Your task to perform on an android device: Clear the shopping cart on walmart. Search for "usb-c to usb-b" on walmart, select the first entry, add it to the cart, then select checkout. Image 0: 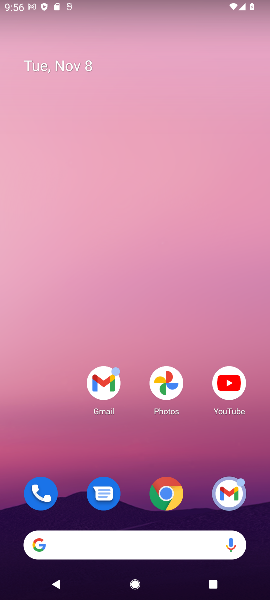
Step 0: click (170, 496)
Your task to perform on an android device: Clear the shopping cart on walmart. Search for "usb-c to usb-b" on walmart, select the first entry, add it to the cart, then select checkout. Image 1: 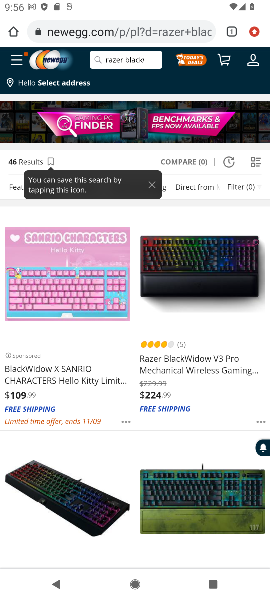
Step 1: click (103, 31)
Your task to perform on an android device: Clear the shopping cart on walmart. Search for "usb-c to usb-b" on walmart, select the first entry, add it to the cart, then select checkout. Image 2: 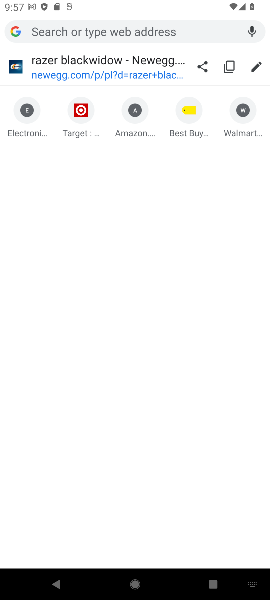
Step 2: click (241, 129)
Your task to perform on an android device: Clear the shopping cart on walmart. Search for "usb-c to usb-b" on walmart, select the first entry, add it to the cart, then select checkout. Image 3: 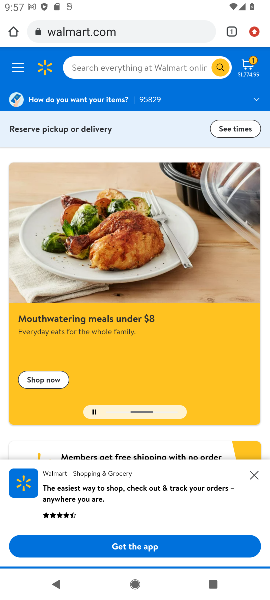
Step 3: click (253, 70)
Your task to perform on an android device: Clear the shopping cart on walmart. Search for "usb-c to usb-b" on walmart, select the first entry, add it to the cart, then select checkout. Image 4: 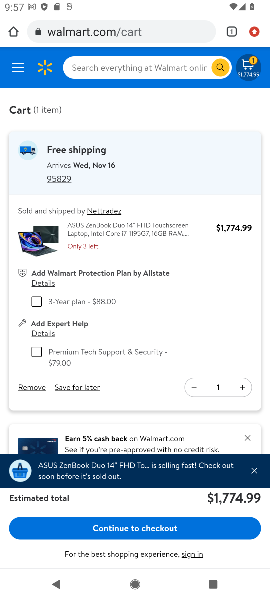
Step 4: click (30, 389)
Your task to perform on an android device: Clear the shopping cart on walmart. Search for "usb-c to usb-b" on walmart, select the first entry, add it to the cart, then select checkout. Image 5: 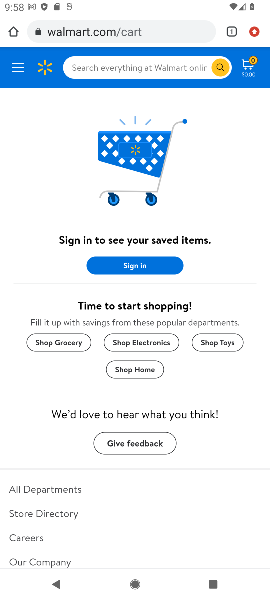
Step 5: click (141, 75)
Your task to perform on an android device: Clear the shopping cart on walmart. Search for "usb-c to usb-b" on walmart, select the first entry, add it to the cart, then select checkout. Image 6: 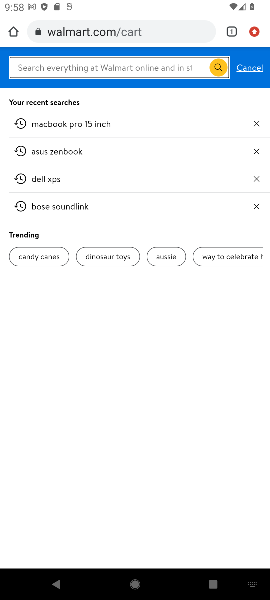
Step 6: type "usb-c to usb-b"
Your task to perform on an android device: Clear the shopping cart on walmart. Search for "usb-c to usb-b" on walmart, select the first entry, add it to the cart, then select checkout. Image 7: 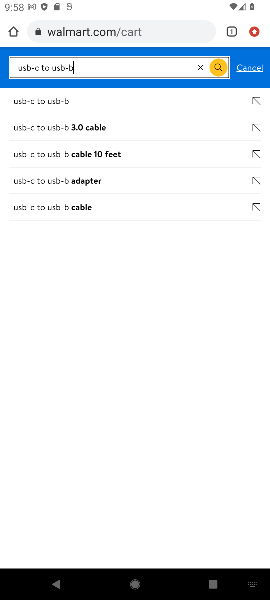
Step 7: click (54, 106)
Your task to perform on an android device: Clear the shopping cart on walmart. Search for "usb-c to usb-b" on walmart, select the first entry, add it to the cart, then select checkout. Image 8: 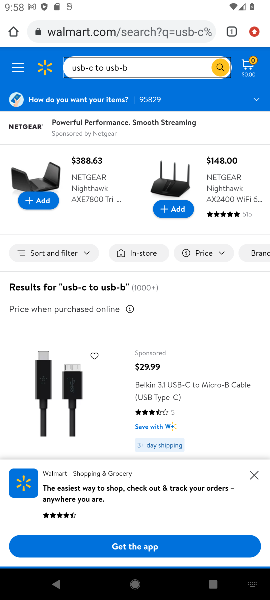
Step 8: task complete